Your task to perform on an android device: change alarm snooze length Image 0: 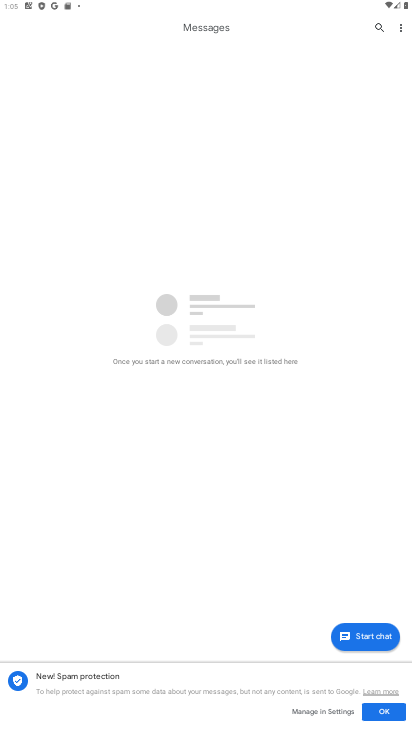
Step 0: press home button
Your task to perform on an android device: change alarm snooze length Image 1: 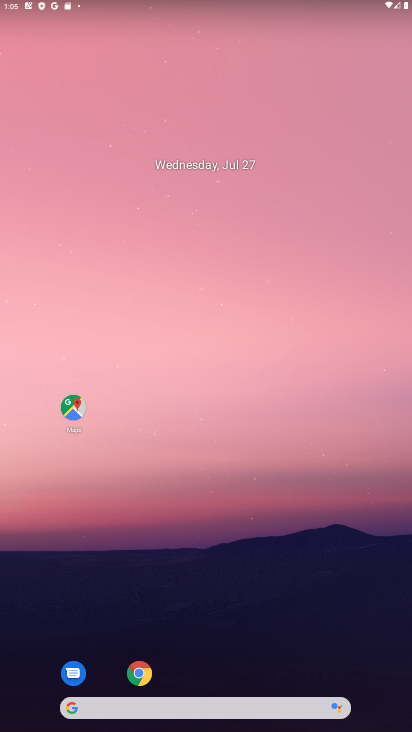
Step 1: drag from (200, 678) to (237, 20)
Your task to perform on an android device: change alarm snooze length Image 2: 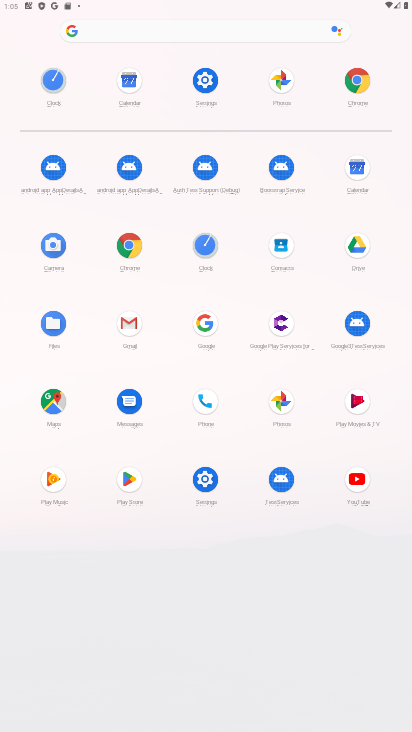
Step 2: click (195, 243)
Your task to perform on an android device: change alarm snooze length Image 3: 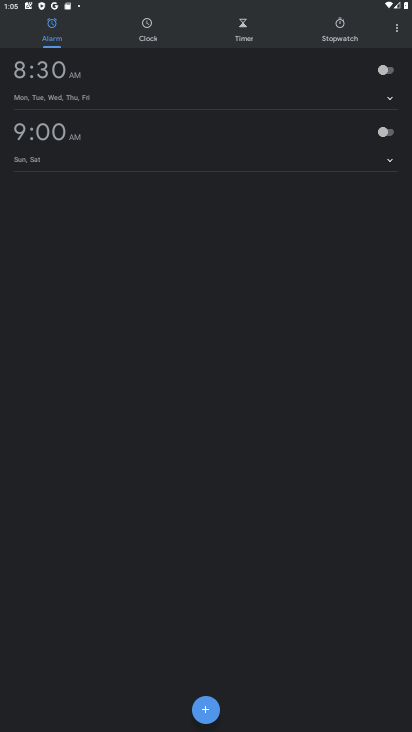
Step 3: click (397, 30)
Your task to perform on an android device: change alarm snooze length Image 4: 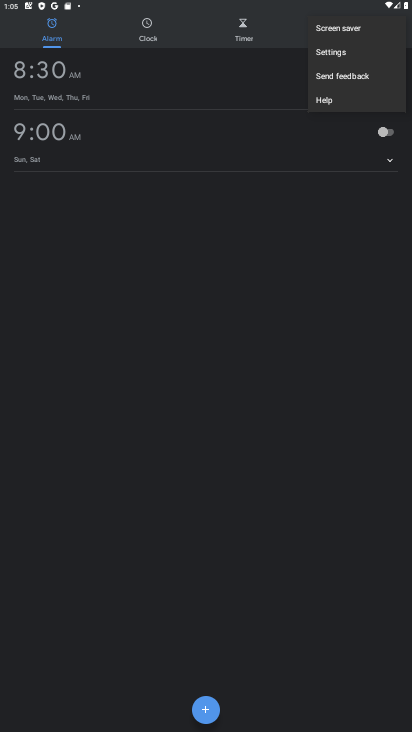
Step 4: click (334, 58)
Your task to perform on an android device: change alarm snooze length Image 5: 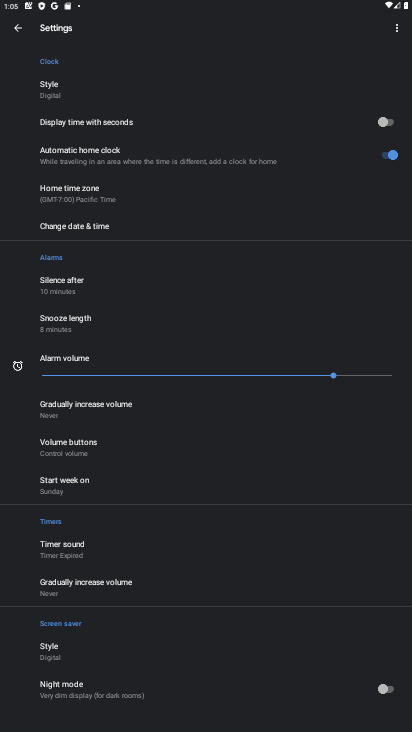
Step 5: click (46, 319)
Your task to perform on an android device: change alarm snooze length Image 6: 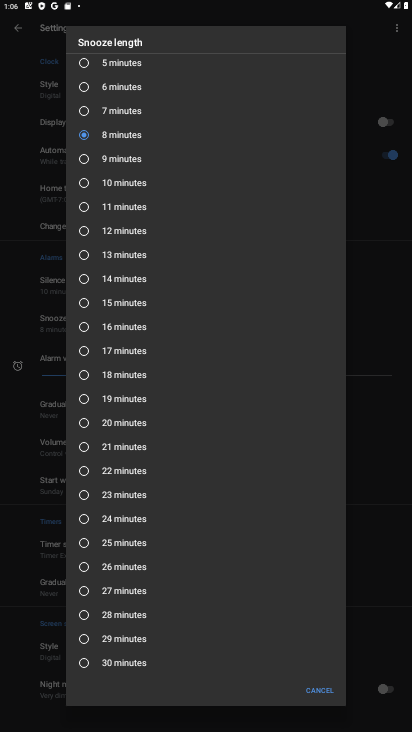
Step 6: click (80, 189)
Your task to perform on an android device: change alarm snooze length Image 7: 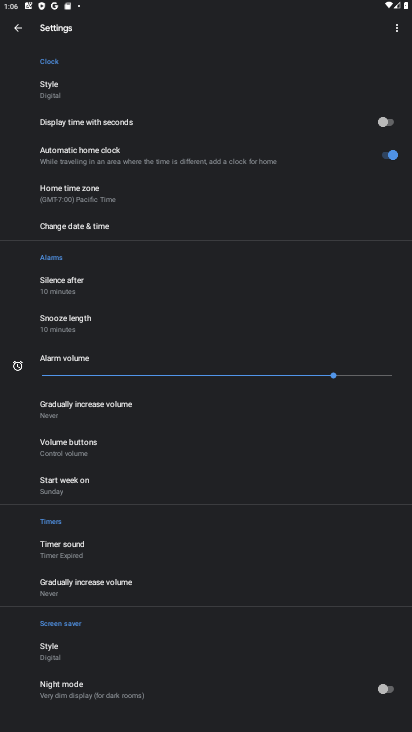
Step 7: task complete